Your task to perform on an android device: Open the calendar and show me this week's events Image 0: 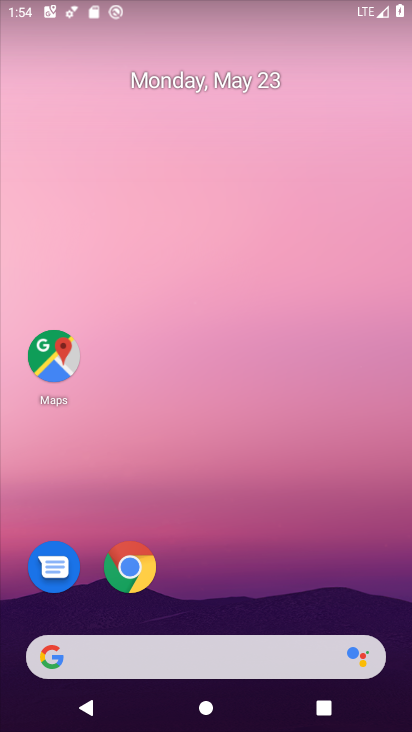
Step 0: drag from (284, 586) to (291, 265)
Your task to perform on an android device: Open the calendar and show me this week's events Image 1: 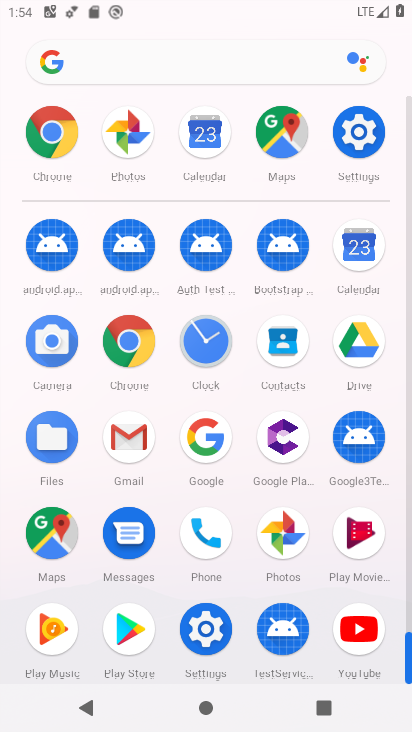
Step 1: click (352, 259)
Your task to perform on an android device: Open the calendar and show me this week's events Image 2: 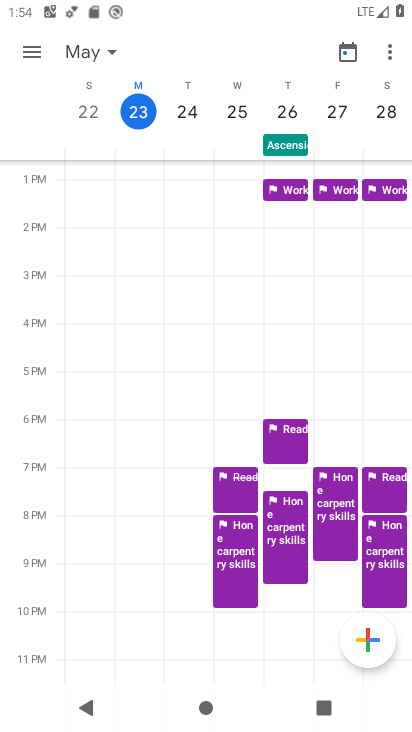
Step 2: task complete